Your task to perform on an android device: Open accessibility settings Image 0: 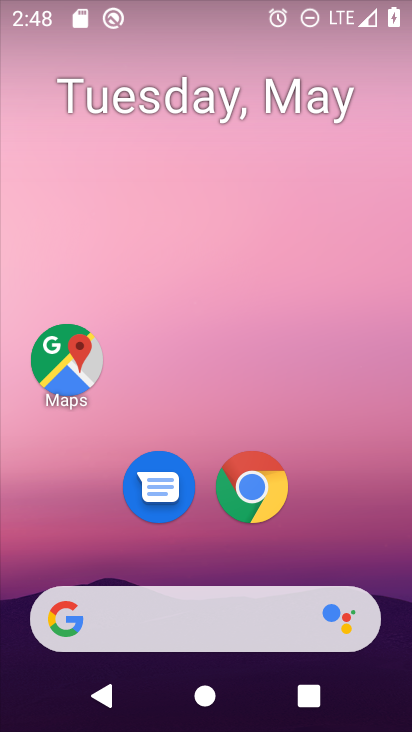
Step 0: drag from (52, 501) to (207, 94)
Your task to perform on an android device: Open accessibility settings Image 1: 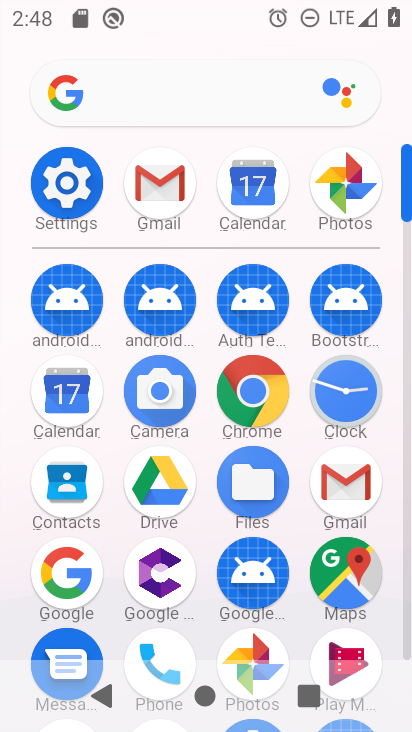
Step 1: click (56, 213)
Your task to perform on an android device: Open accessibility settings Image 2: 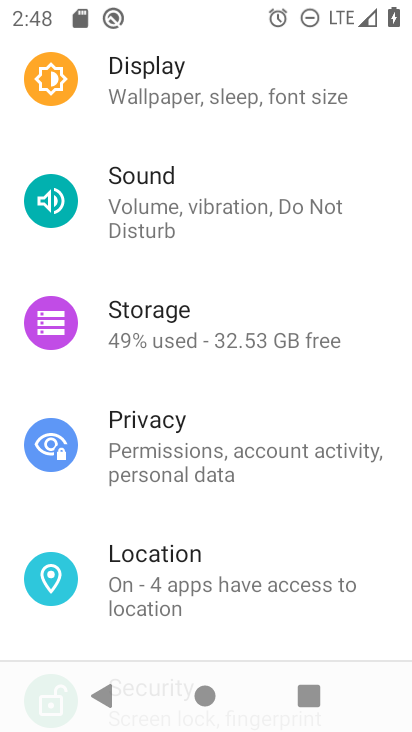
Step 2: drag from (112, 578) to (265, 183)
Your task to perform on an android device: Open accessibility settings Image 3: 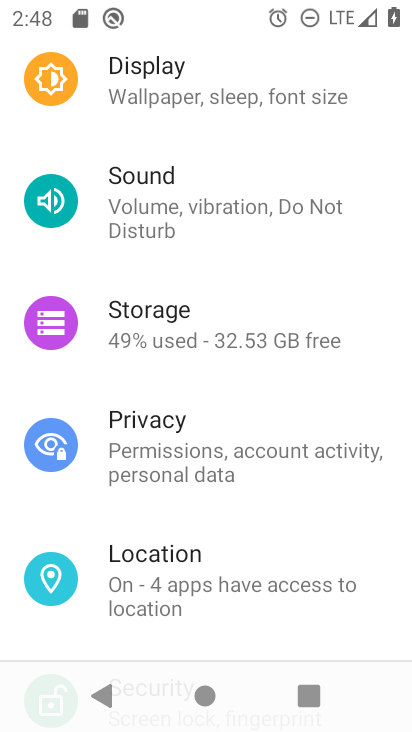
Step 3: drag from (9, 584) to (216, 218)
Your task to perform on an android device: Open accessibility settings Image 4: 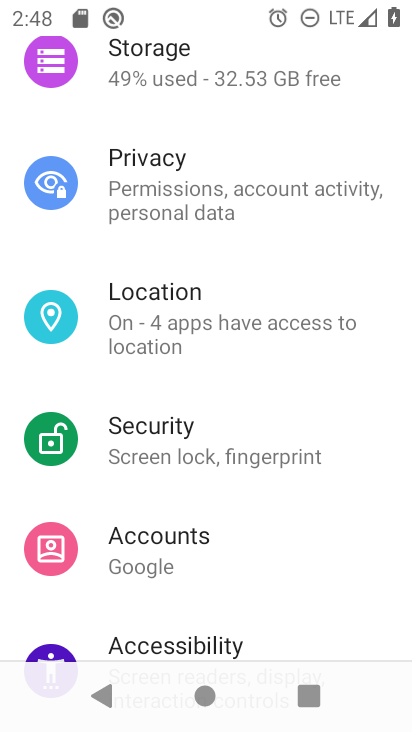
Step 4: click (215, 642)
Your task to perform on an android device: Open accessibility settings Image 5: 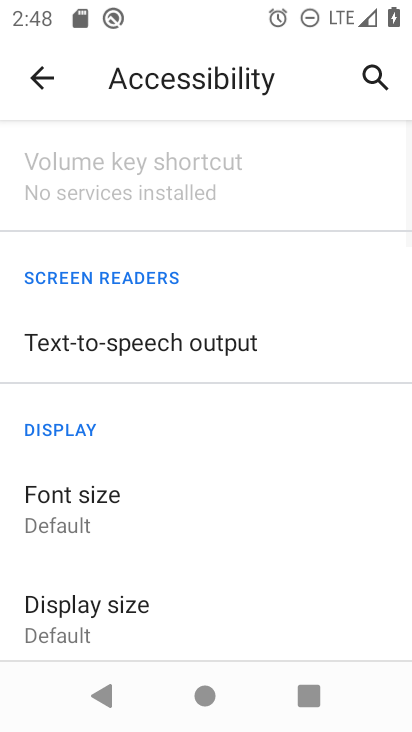
Step 5: task complete